Your task to perform on an android device: Is it going to rain this weekend? Image 0: 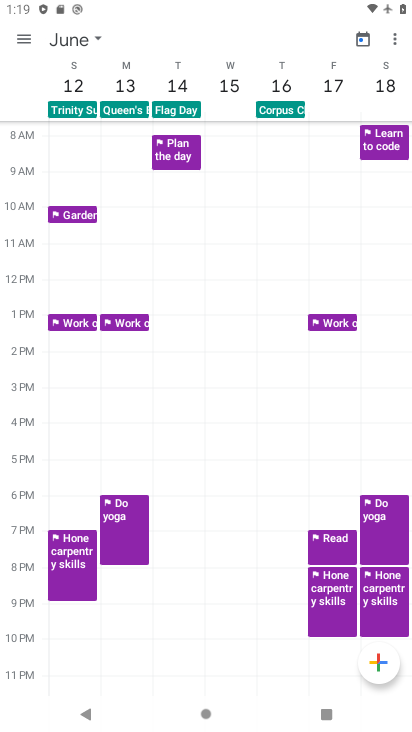
Step 0: press home button
Your task to perform on an android device: Is it going to rain this weekend? Image 1: 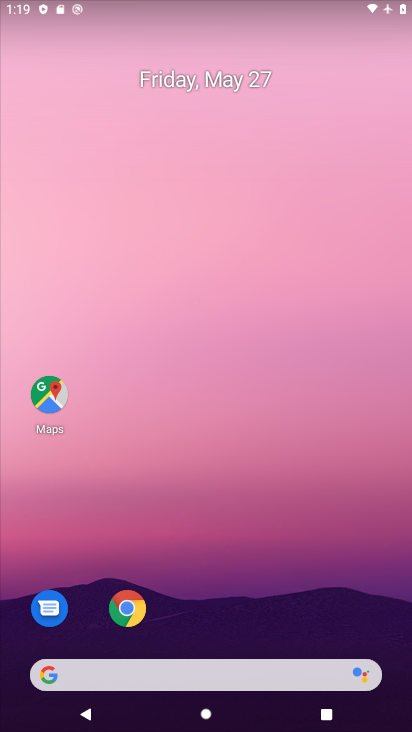
Step 1: click (47, 679)
Your task to perform on an android device: Is it going to rain this weekend? Image 2: 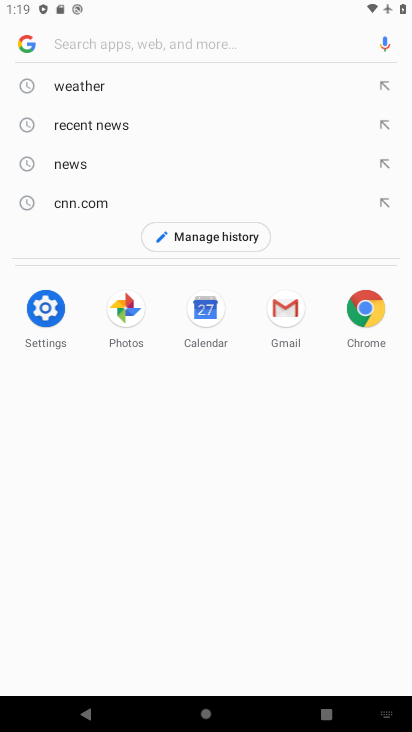
Step 2: click (91, 84)
Your task to perform on an android device: Is it going to rain this weekend? Image 3: 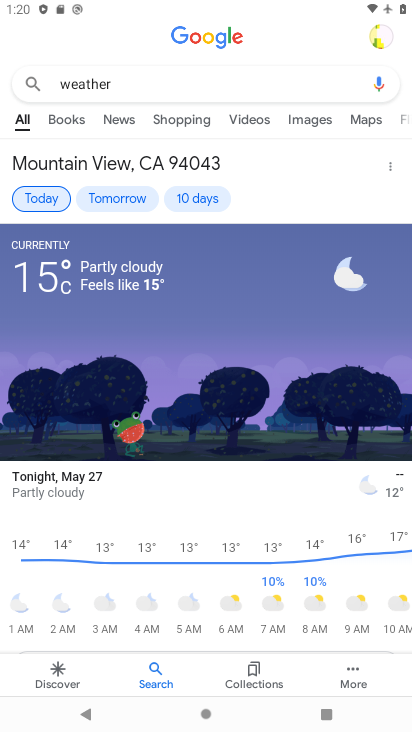
Step 3: click (186, 196)
Your task to perform on an android device: Is it going to rain this weekend? Image 4: 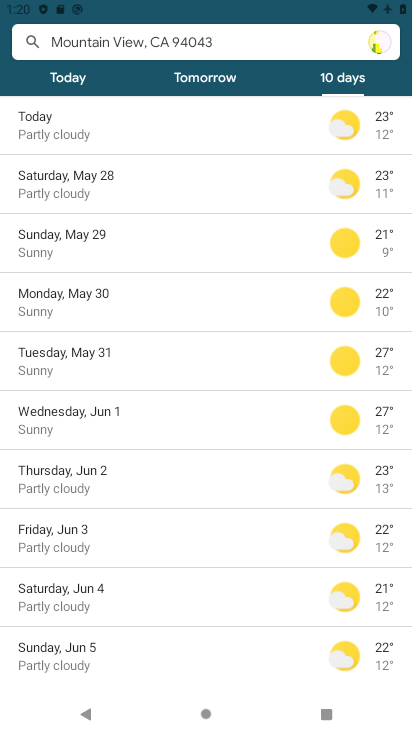
Step 4: click (110, 181)
Your task to perform on an android device: Is it going to rain this weekend? Image 5: 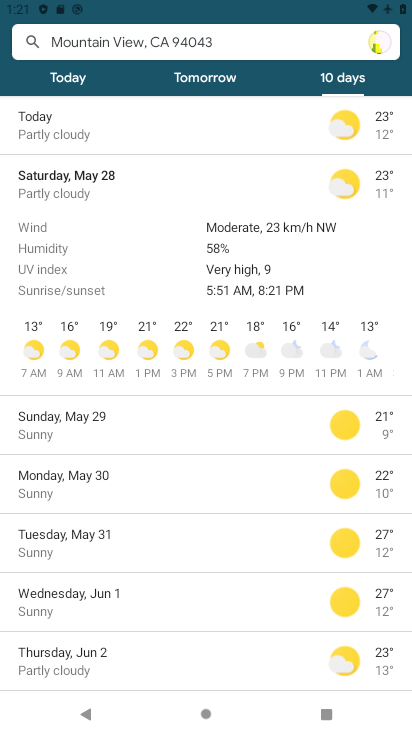
Step 5: task complete